Your task to perform on an android device: Open accessibility settings Image 0: 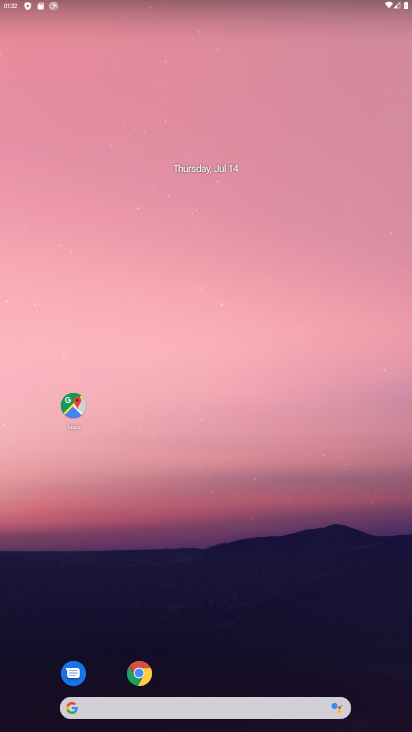
Step 0: drag from (273, 243) to (273, 172)
Your task to perform on an android device: Open accessibility settings Image 1: 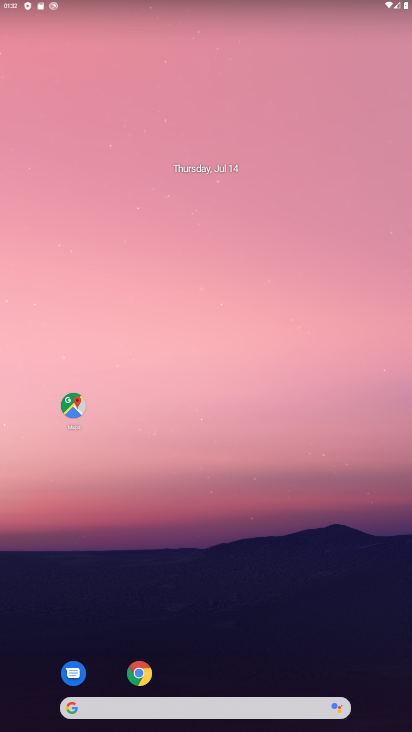
Step 1: drag from (246, 698) to (222, 237)
Your task to perform on an android device: Open accessibility settings Image 2: 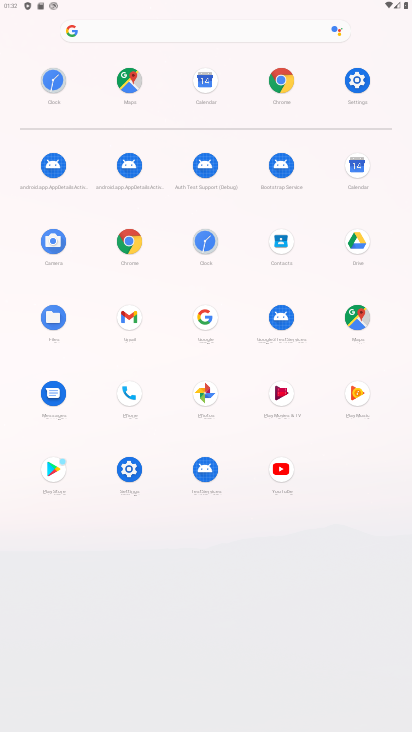
Step 2: click (349, 99)
Your task to perform on an android device: Open accessibility settings Image 3: 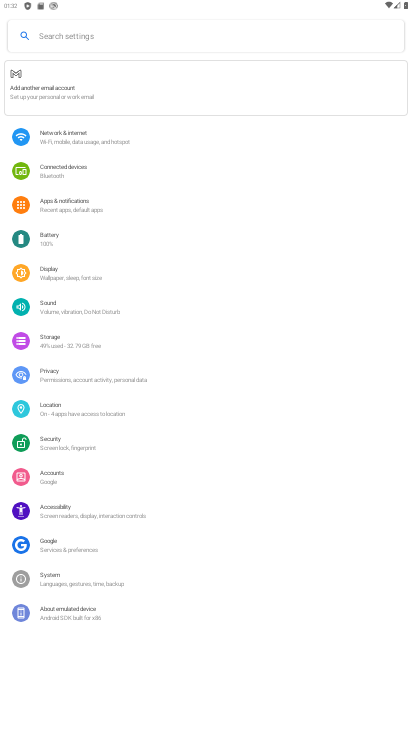
Step 3: click (70, 470)
Your task to perform on an android device: Open accessibility settings Image 4: 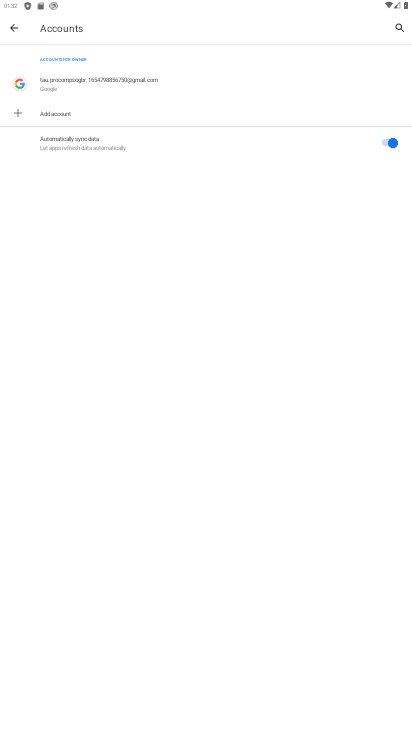
Step 4: task complete